Your task to perform on an android device: Add asus zenbook to the cart on target Image 0: 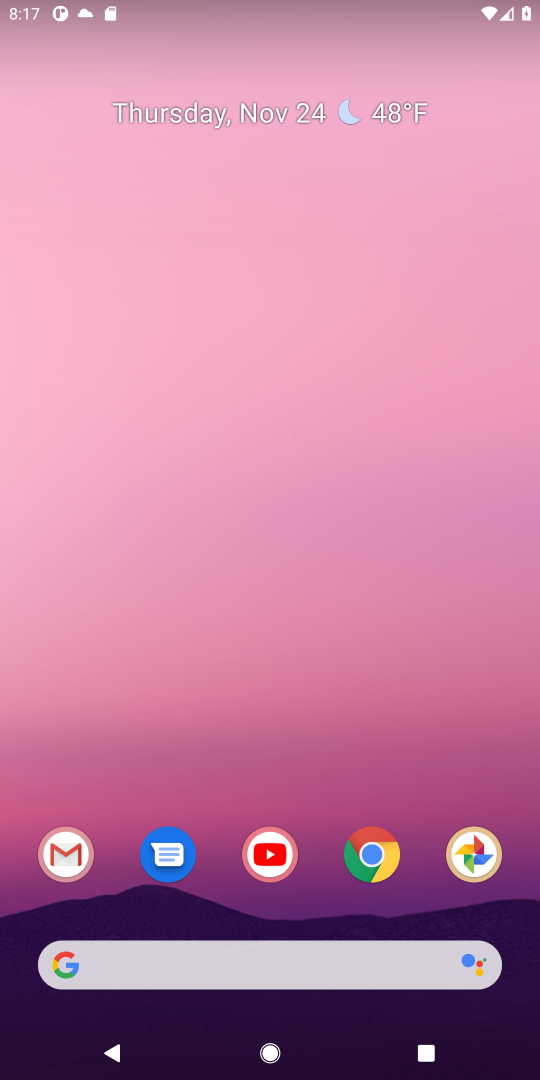
Step 0: click (375, 858)
Your task to perform on an android device: Add asus zenbook to the cart on target Image 1: 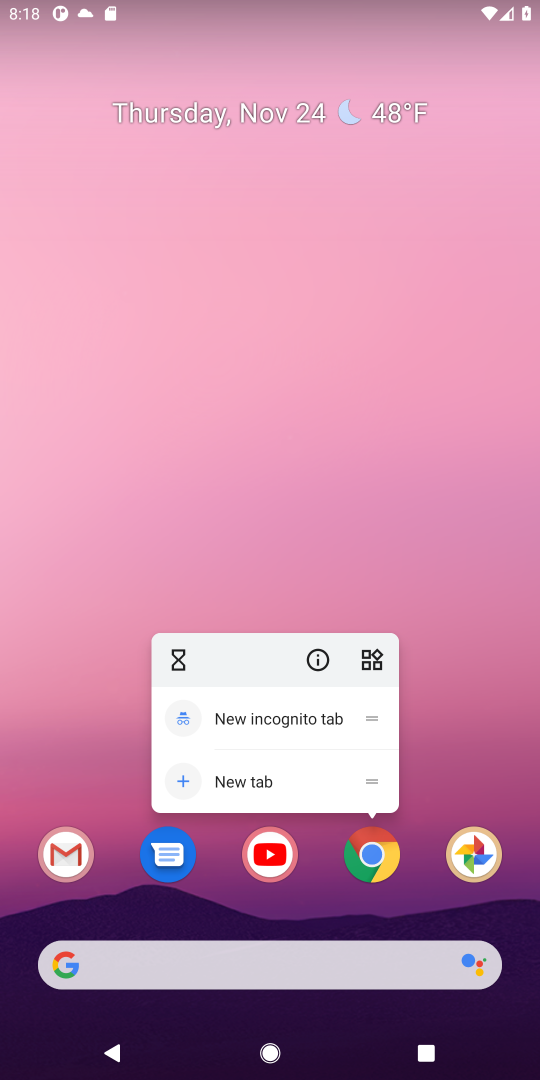
Step 1: click (375, 858)
Your task to perform on an android device: Add asus zenbook to the cart on target Image 2: 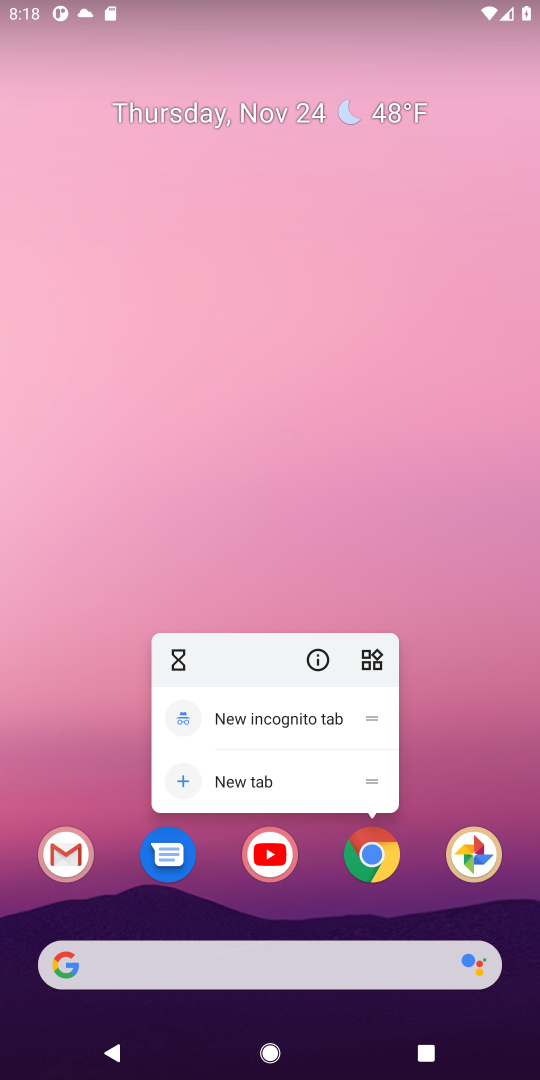
Step 2: click (375, 858)
Your task to perform on an android device: Add asus zenbook to the cart on target Image 3: 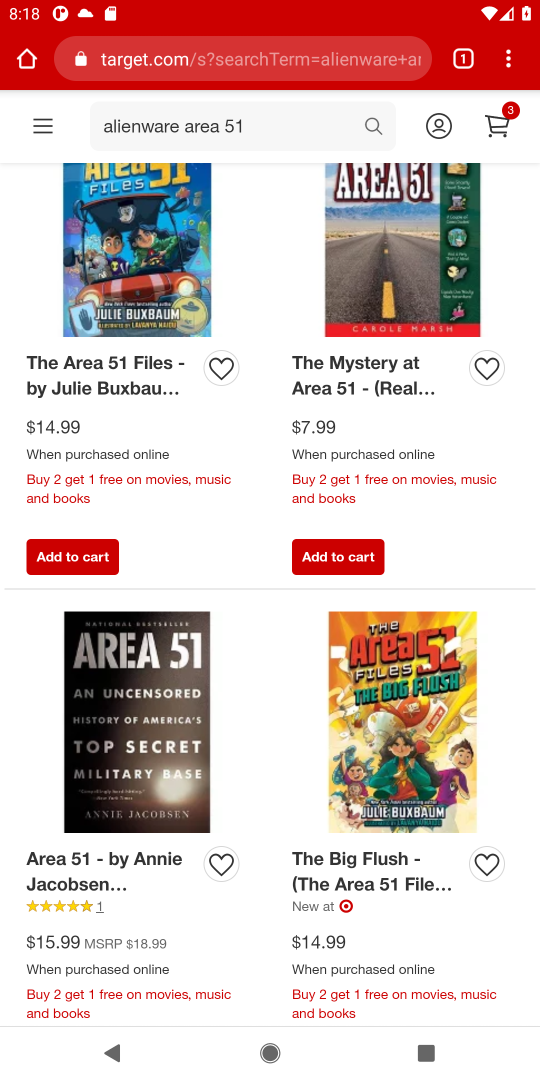
Step 3: click (375, 133)
Your task to perform on an android device: Add asus zenbook to the cart on target Image 4: 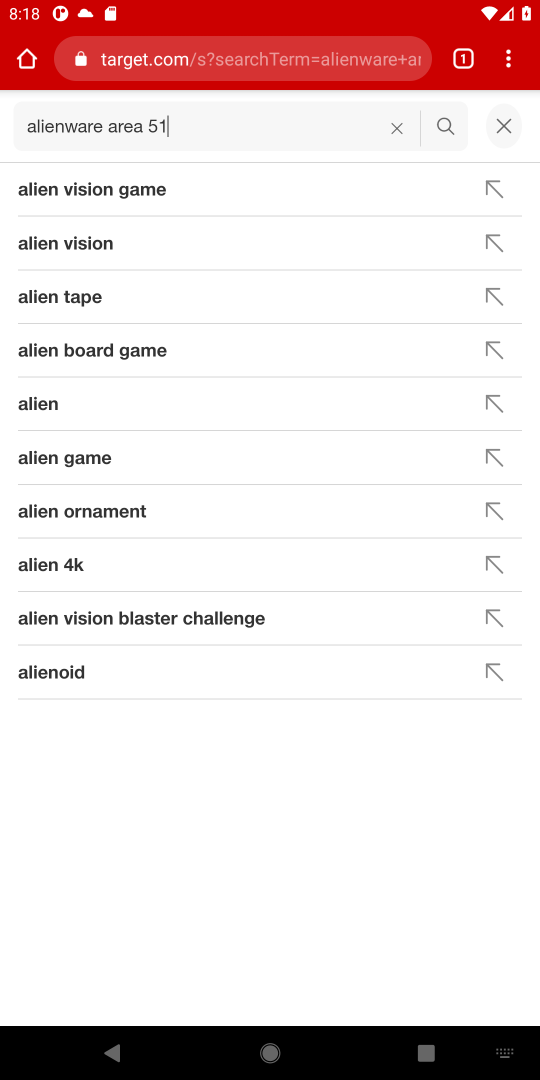
Step 4: click (391, 127)
Your task to perform on an android device: Add asus zenbook to the cart on target Image 5: 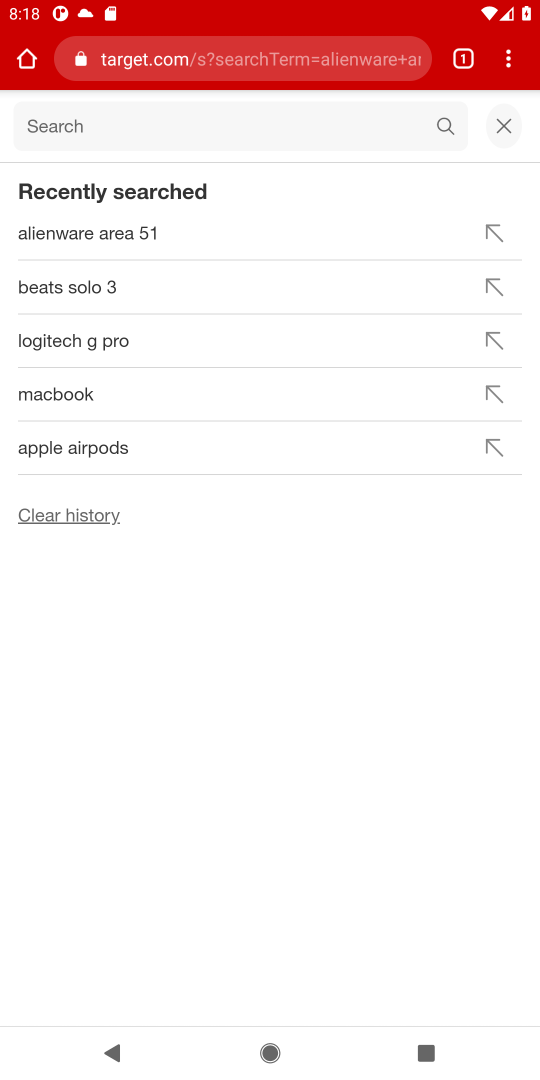
Step 5: type "asus zenbook "
Your task to perform on an android device: Add asus zenbook to the cart on target Image 6: 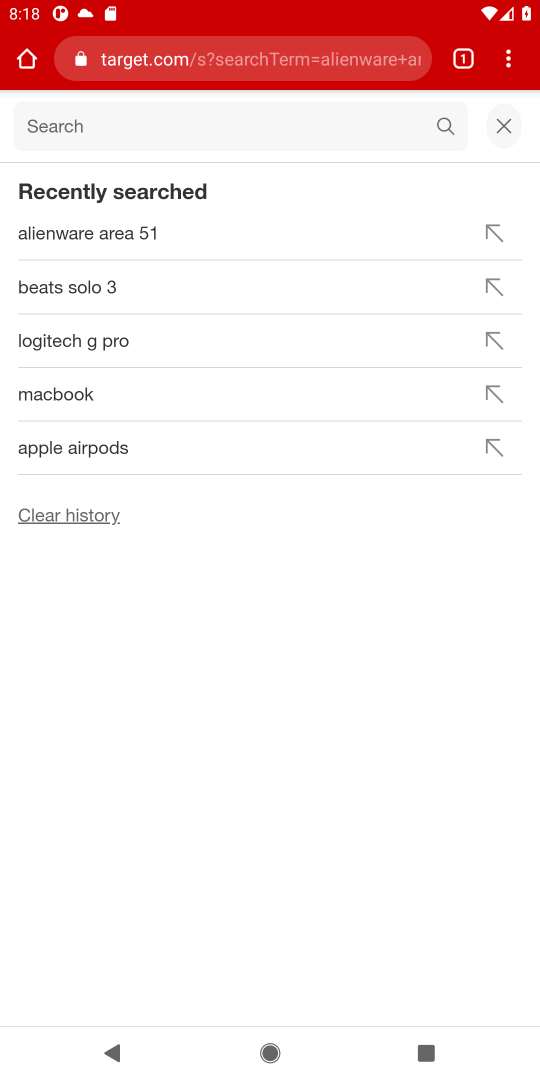
Step 6: click (82, 121)
Your task to perform on an android device: Add asus zenbook to the cart on target Image 7: 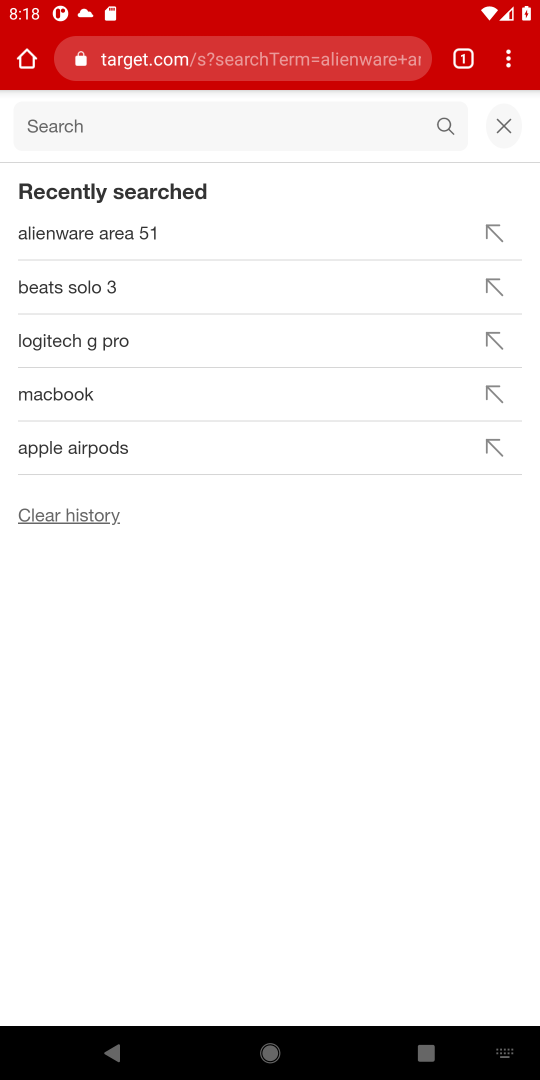
Step 7: type "asus zenbook "
Your task to perform on an android device: Add asus zenbook to the cart on target Image 8: 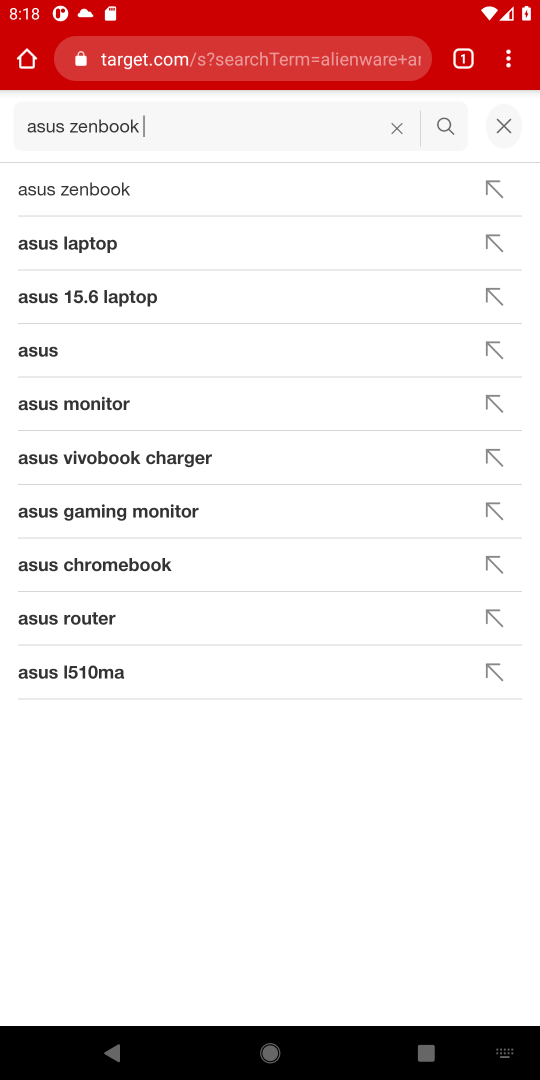
Step 8: click (96, 199)
Your task to perform on an android device: Add asus zenbook to the cart on target Image 9: 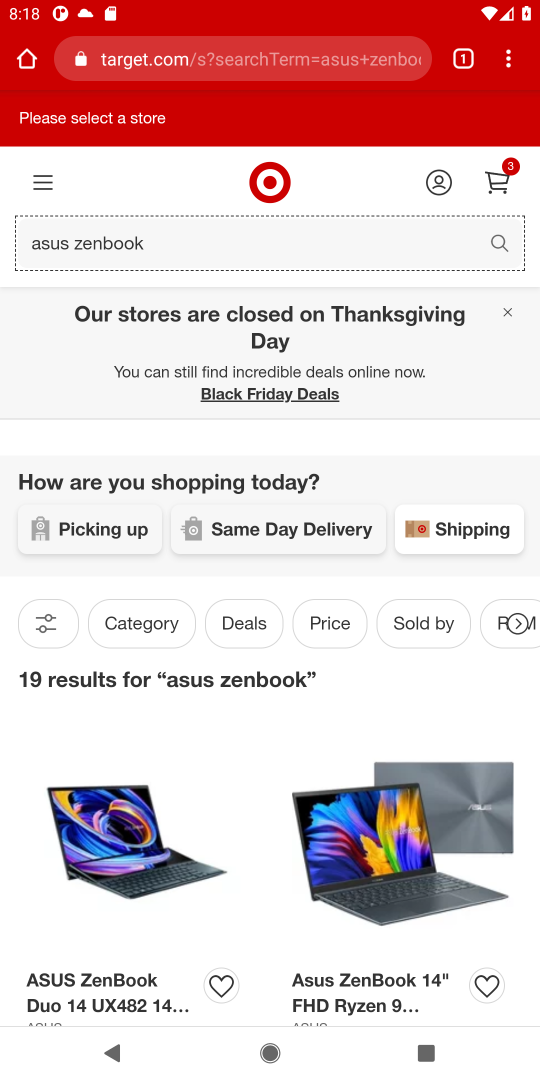
Step 9: drag from (258, 589) to (272, 276)
Your task to perform on an android device: Add asus zenbook to the cart on target Image 10: 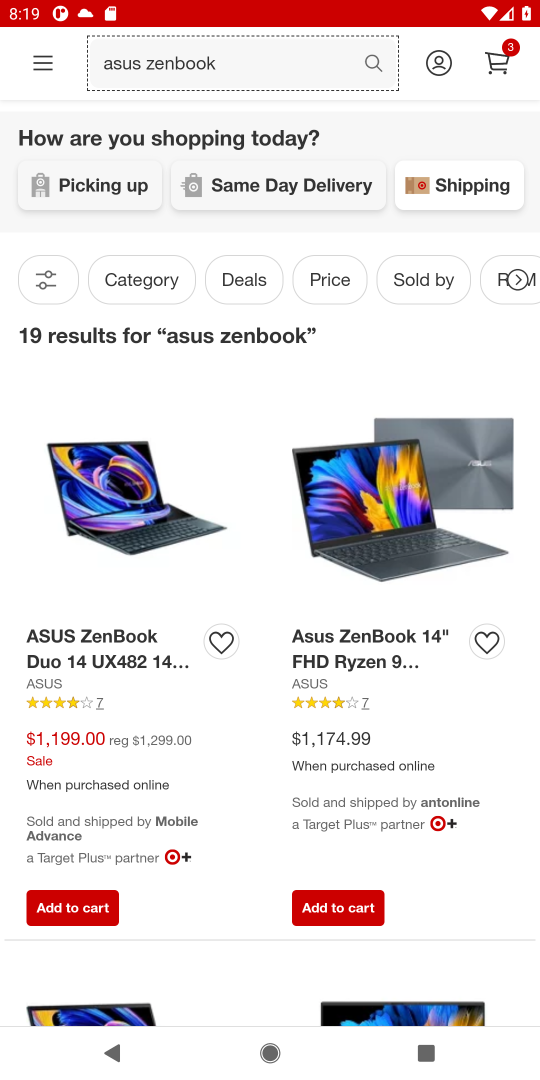
Step 10: click (97, 566)
Your task to perform on an android device: Add asus zenbook to the cart on target Image 11: 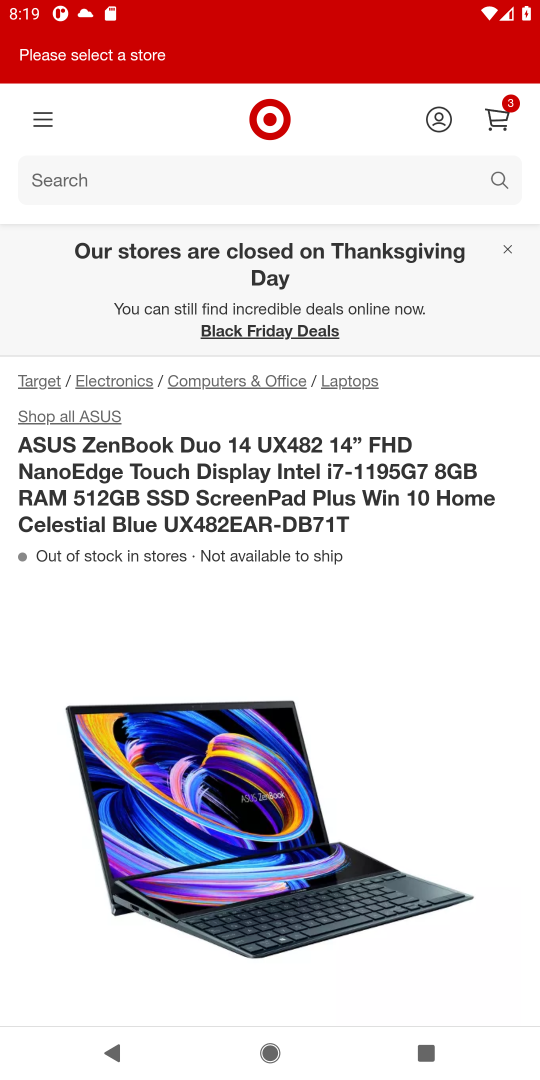
Step 11: drag from (194, 731) to (168, 320)
Your task to perform on an android device: Add asus zenbook to the cart on target Image 12: 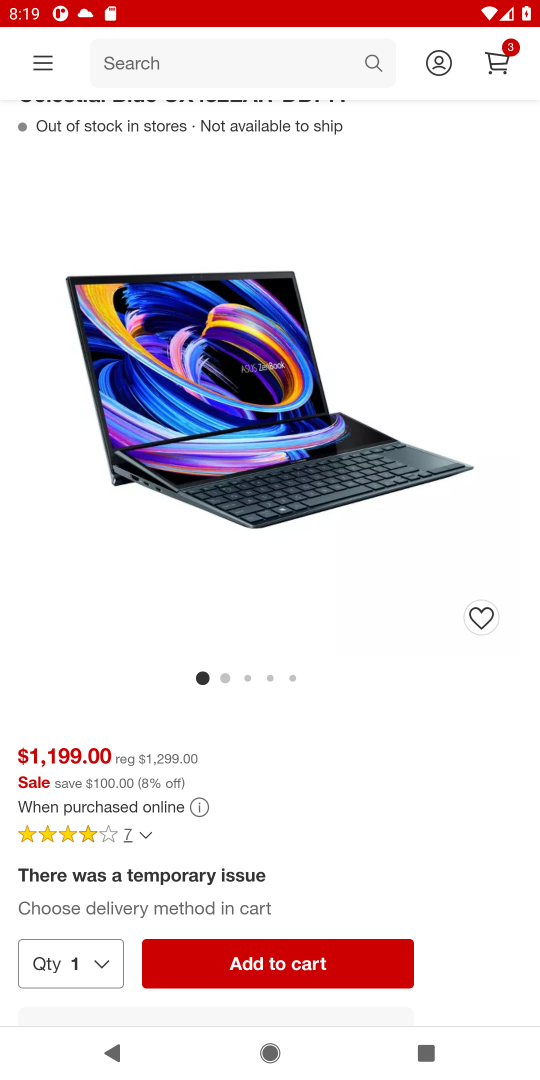
Step 12: drag from (184, 758) to (174, 526)
Your task to perform on an android device: Add asus zenbook to the cart on target Image 13: 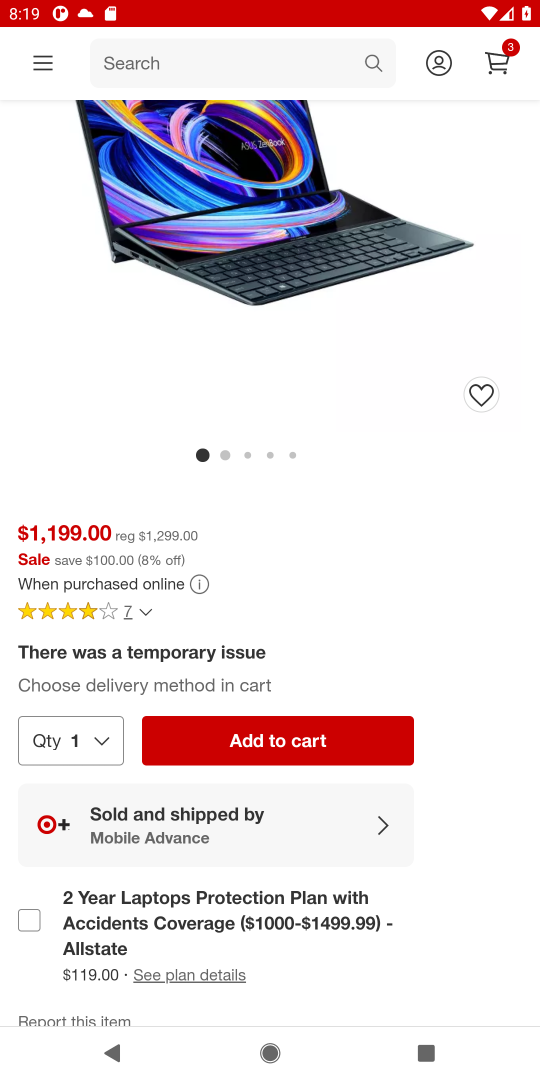
Step 13: click (257, 752)
Your task to perform on an android device: Add asus zenbook to the cart on target Image 14: 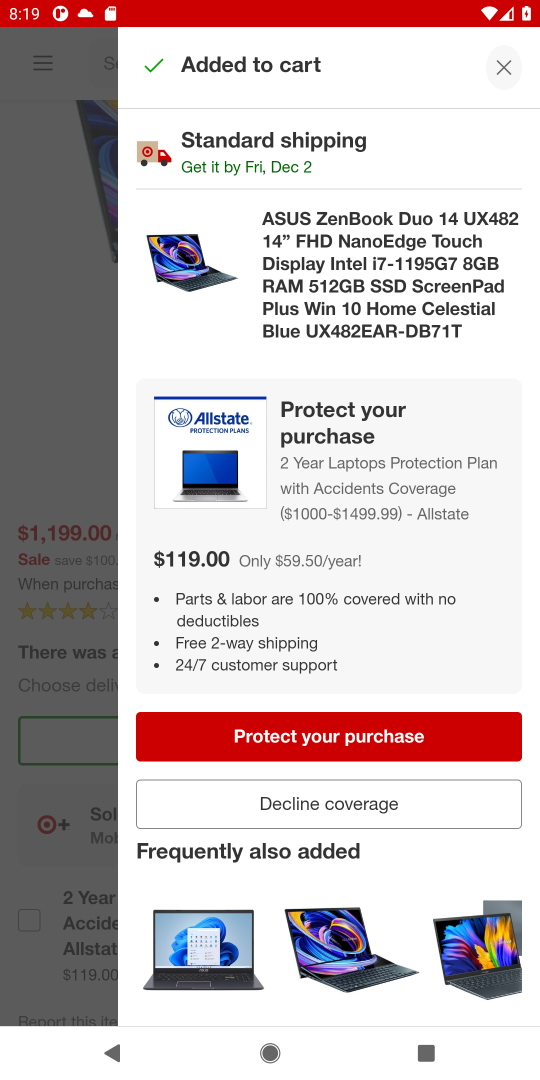
Step 14: task complete